Your task to perform on an android device: Clear the cart on walmart. Image 0: 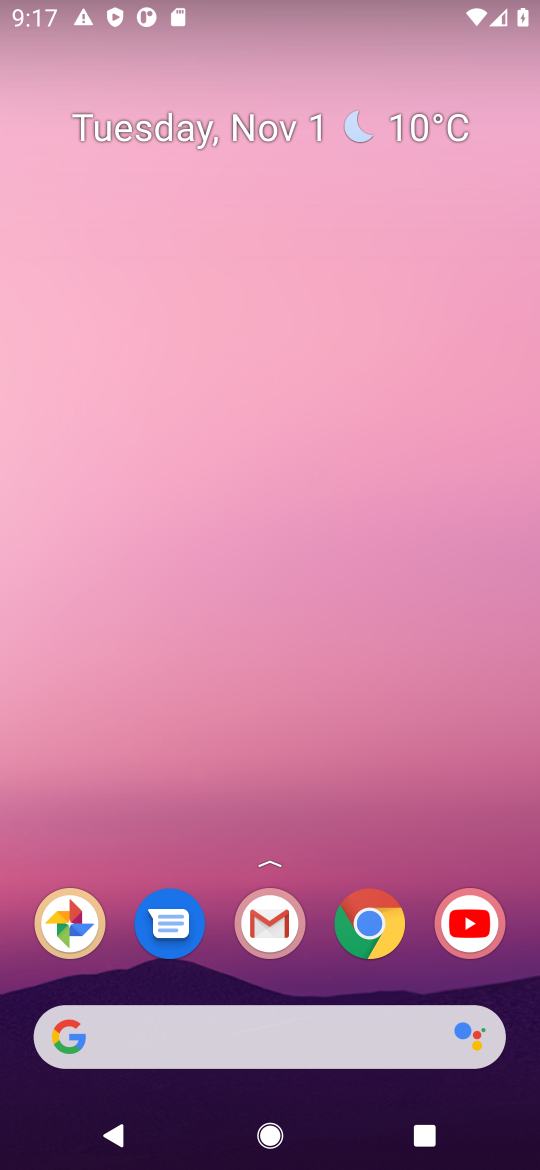
Step 0: drag from (343, 272) to (378, 120)
Your task to perform on an android device: Clear the cart on walmart. Image 1: 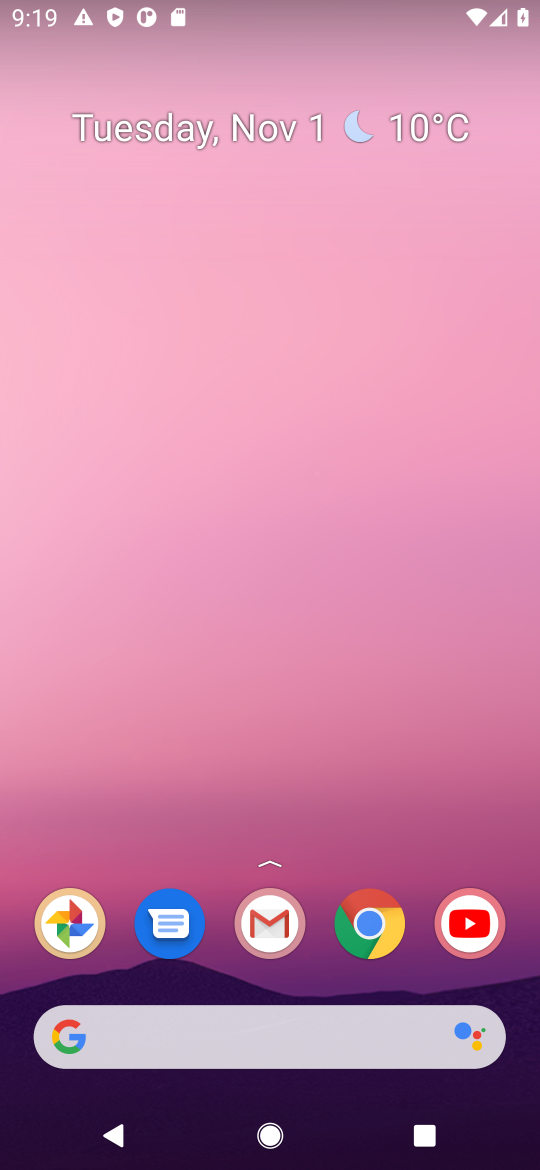
Step 1: drag from (306, 964) to (310, 138)
Your task to perform on an android device: Clear the cart on walmart. Image 2: 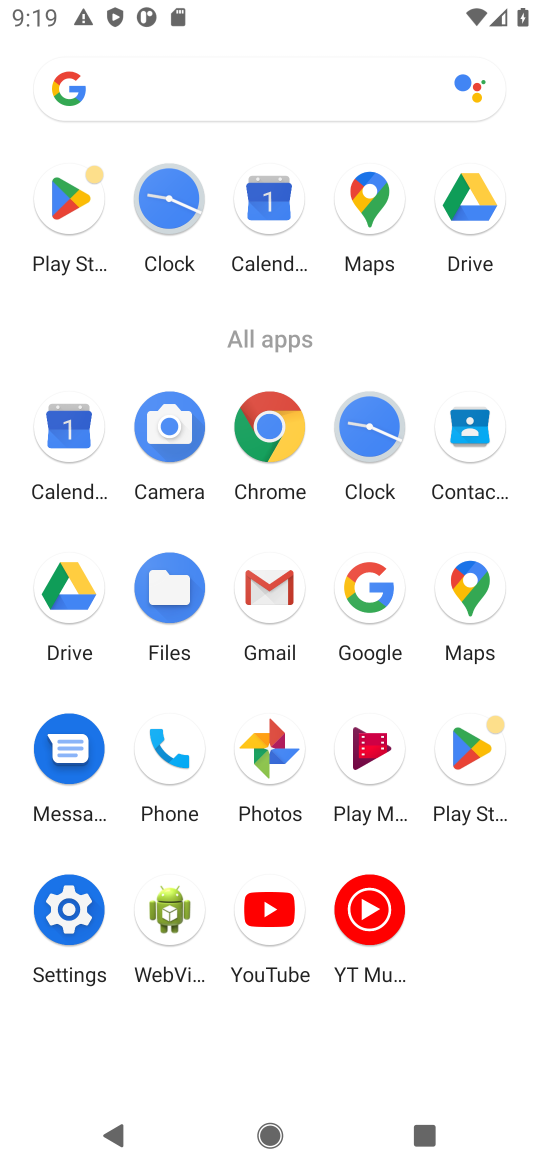
Step 2: click (267, 429)
Your task to perform on an android device: Clear the cart on walmart. Image 3: 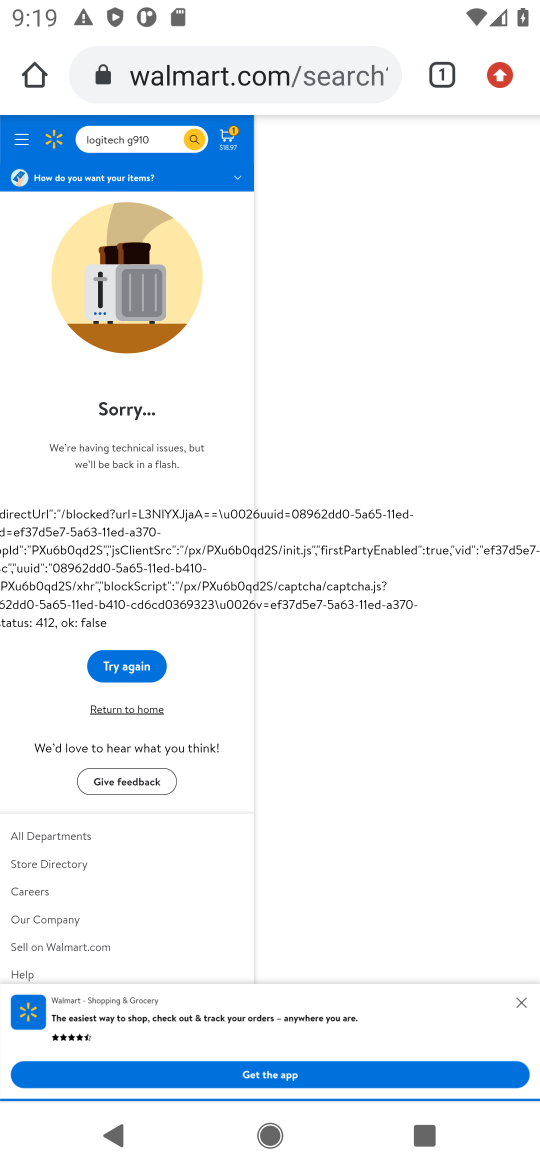
Step 3: click (237, 70)
Your task to perform on an android device: Clear the cart on walmart. Image 4: 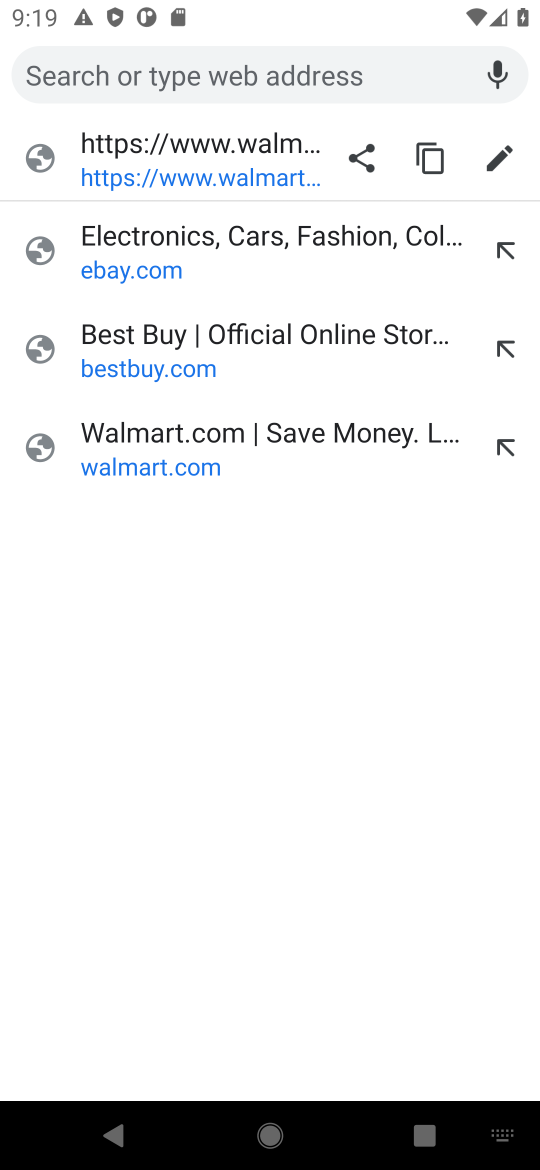
Step 4: type "walmart.com"
Your task to perform on an android device: Clear the cart on walmart. Image 5: 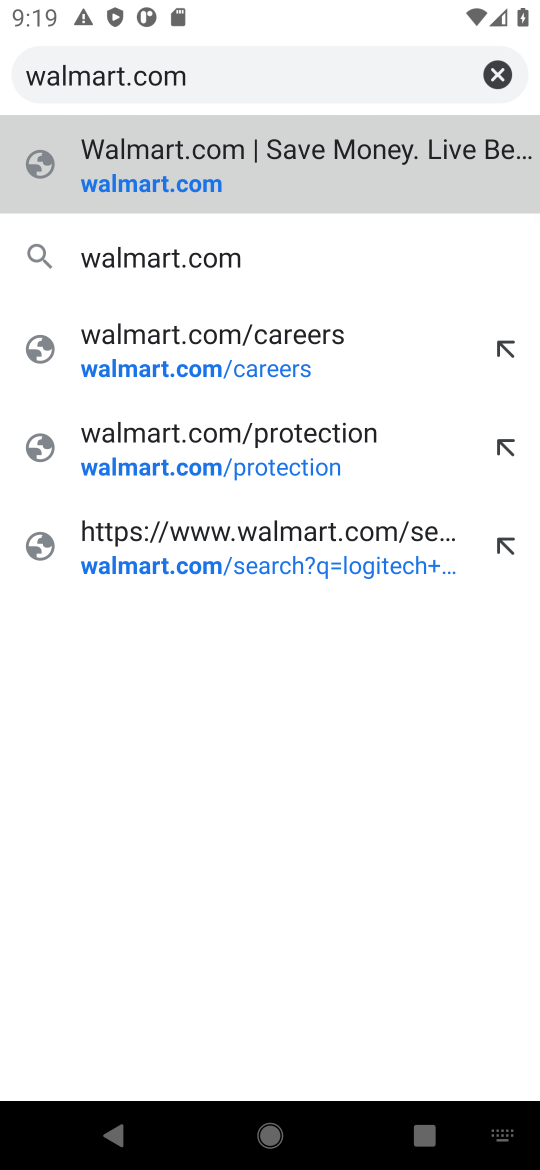
Step 5: press enter
Your task to perform on an android device: Clear the cart on walmart. Image 6: 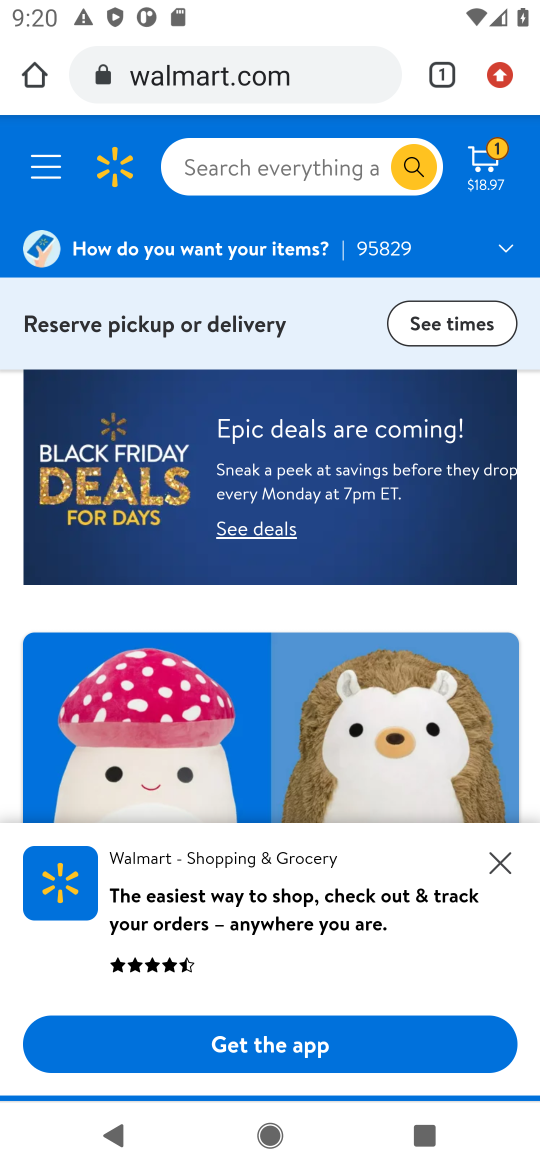
Step 6: click (486, 171)
Your task to perform on an android device: Clear the cart on walmart. Image 7: 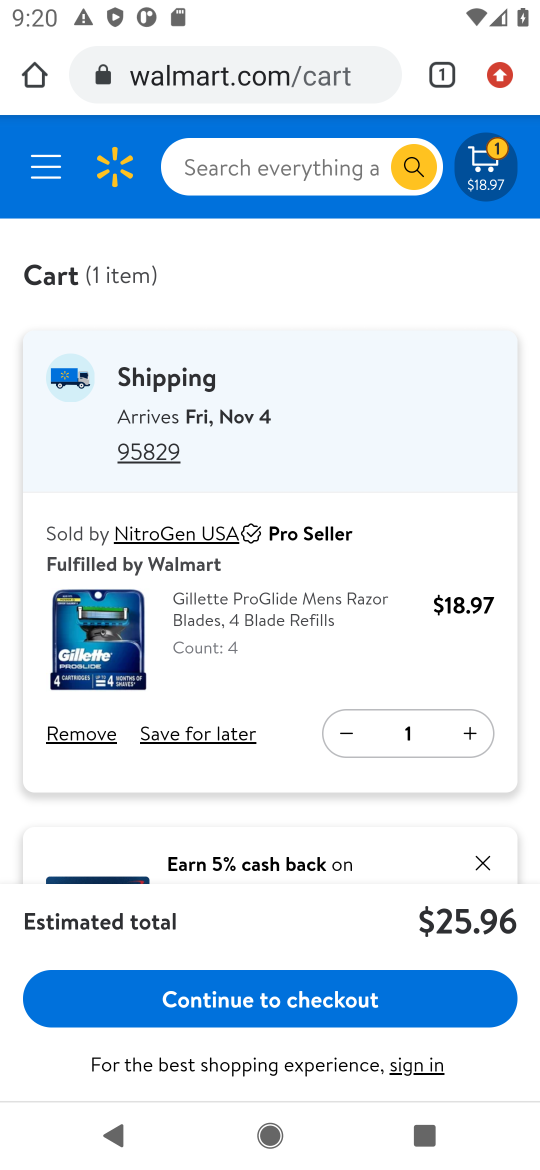
Step 7: click (81, 738)
Your task to perform on an android device: Clear the cart on walmart. Image 8: 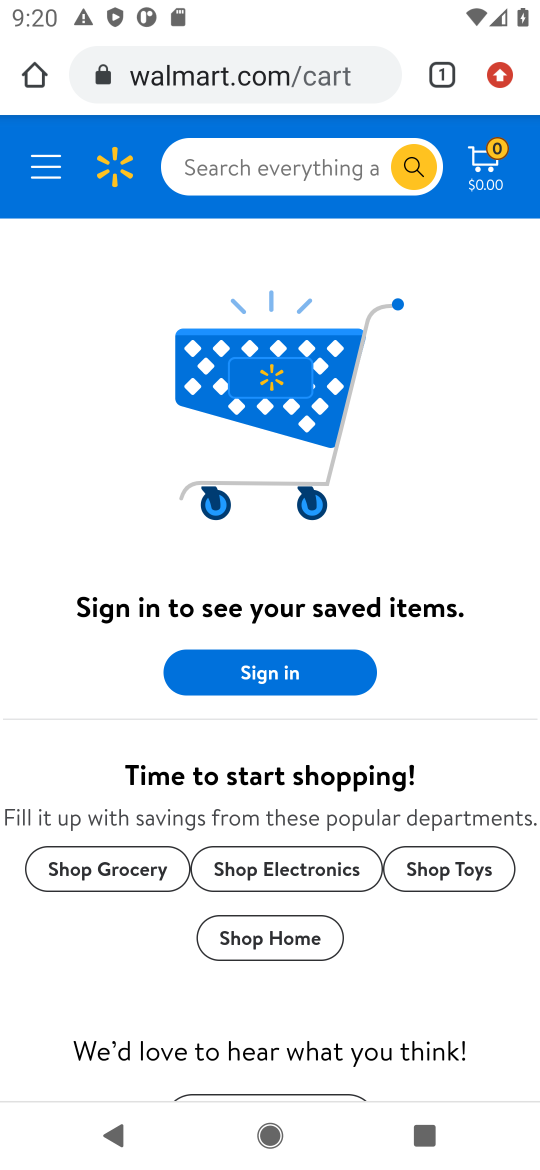
Step 8: task complete